Your task to perform on an android device: set an alarm Image 0: 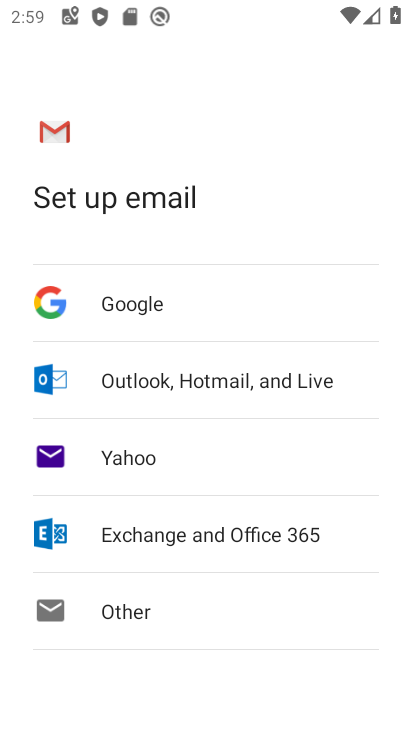
Step 0: press home button
Your task to perform on an android device: set an alarm Image 1: 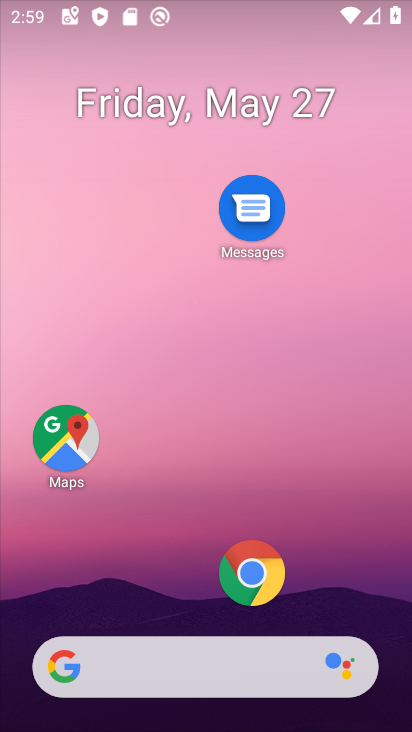
Step 1: drag from (301, 492) to (295, 277)
Your task to perform on an android device: set an alarm Image 2: 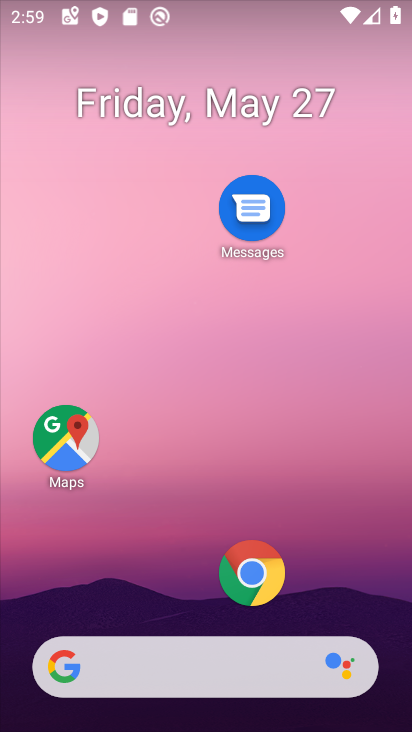
Step 2: drag from (238, 441) to (187, 82)
Your task to perform on an android device: set an alarm Image 3: 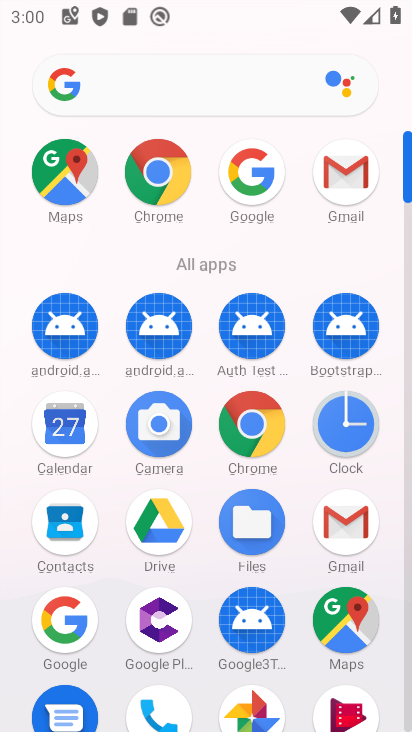
Step 3: click (328, 425)
Your task to perform on an android device: set an alarm Image 4: 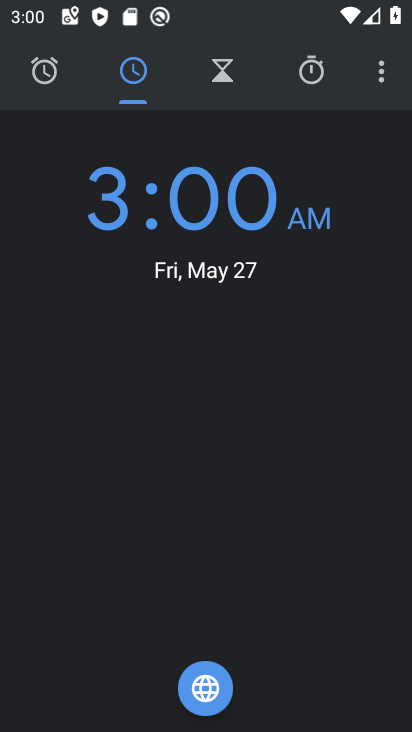
Step 4: click (71, 79)
Your task to perform on an android device: set an alarm Image 5: 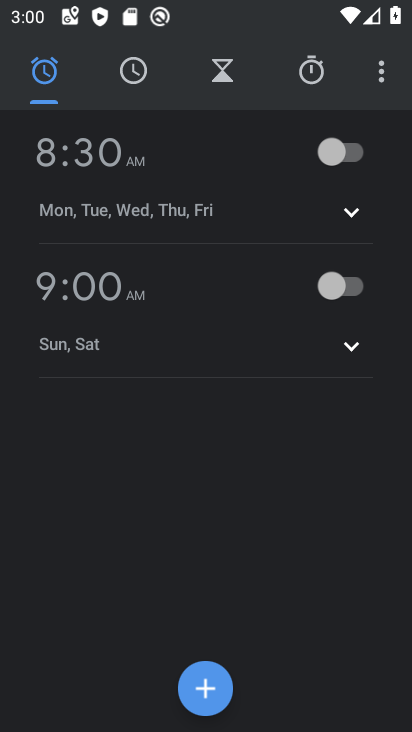
Step 5: click (227, 682)
Your task to perform on an android device: set an alarm Image 6: 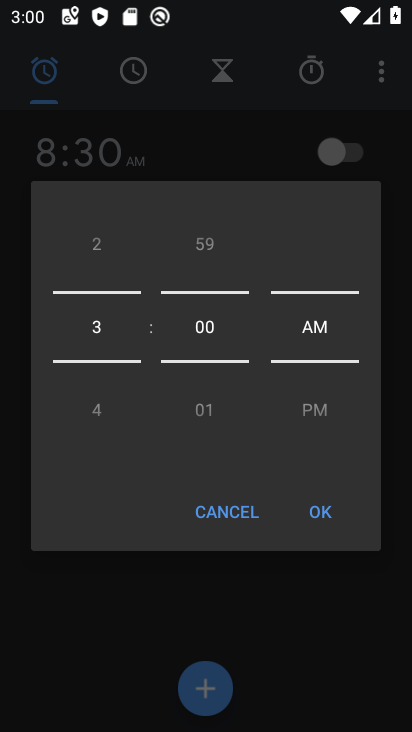
Step 6: click (317, 517)
Your task to perform on an android device: set an alarm Image 7: 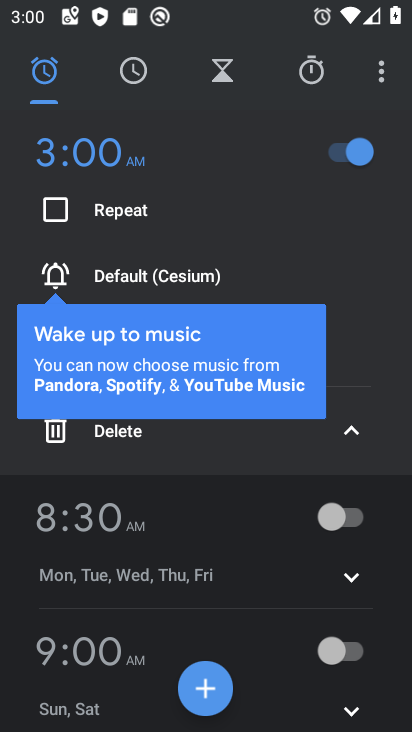
Step 7: task complete